Your task to perform on an android device: allow cookies in the chrome app Image 0: 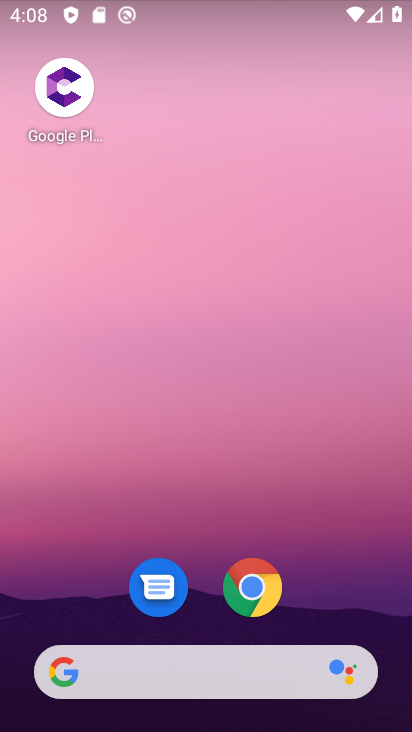
Step 0: click (254, 604)
Your task to perform on an android device: allow cookies in the chrome app Image 1: 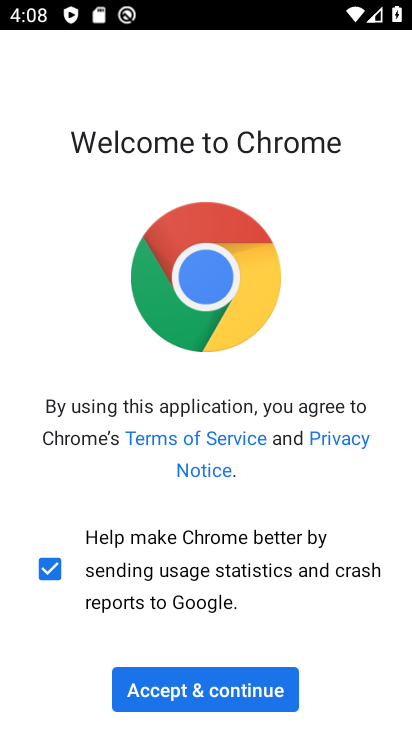
Step 1: click (233, 678)
Your task to perform on an android device: allow cookies in the chrome app Image 2: 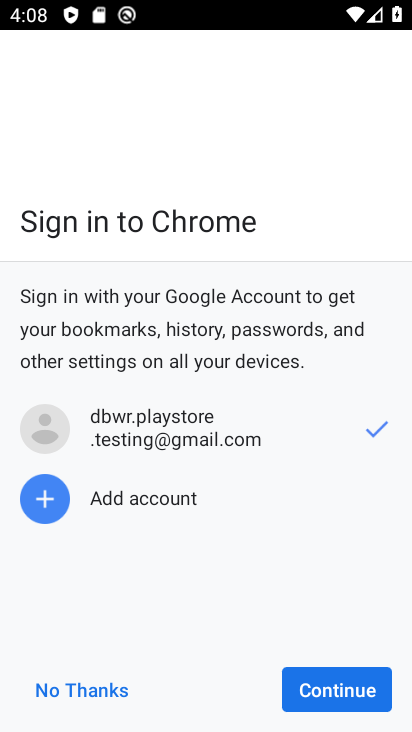
Step 2: click (390, 699)
Your task to perform on an android device: allow cookies in the chrome app Image 3: 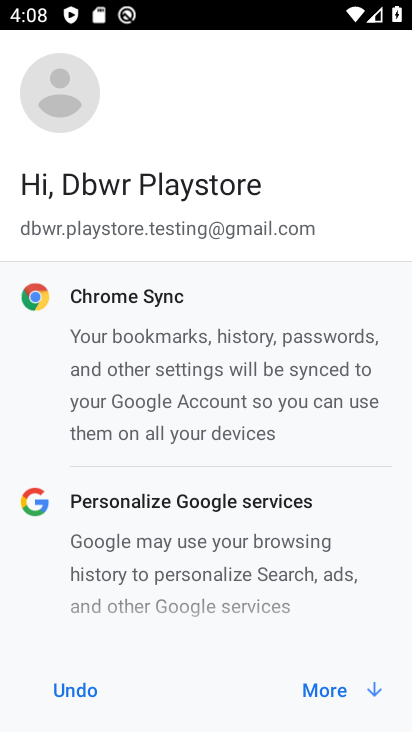
Step 3: click (316, 683)
Your task to perform on an android device: allow cookies in the chrome app Image 4: 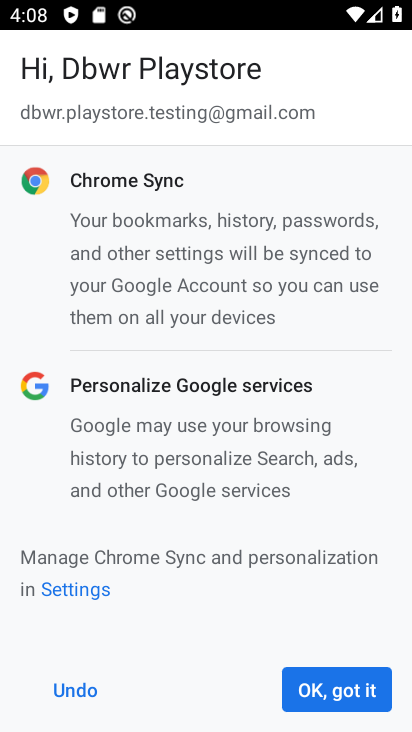
Step 4: click (316, 683)
Your task to perform on an android device: allow cookies in the chrome app Image 5: 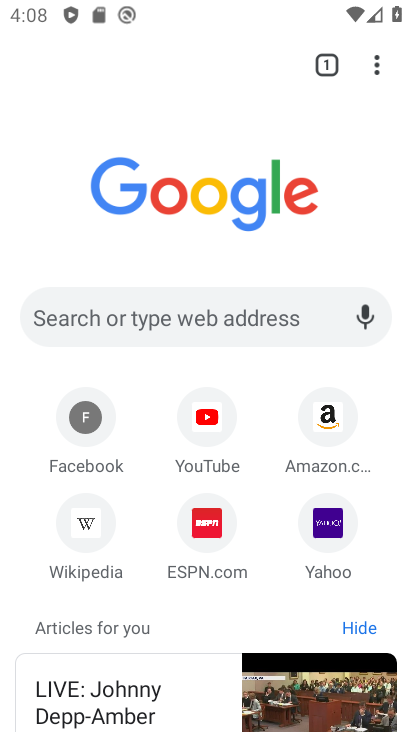
Step 5: click (381, 65)
Your task to perform on an android device: allow cookies in the chrome app Image 6: 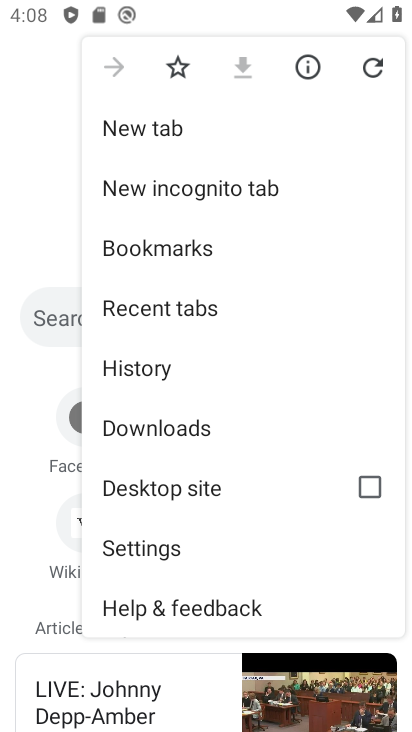
Step 6: click (188, 558)
Your task to perform on an android device: allow cookies in the chrome app Image 7: 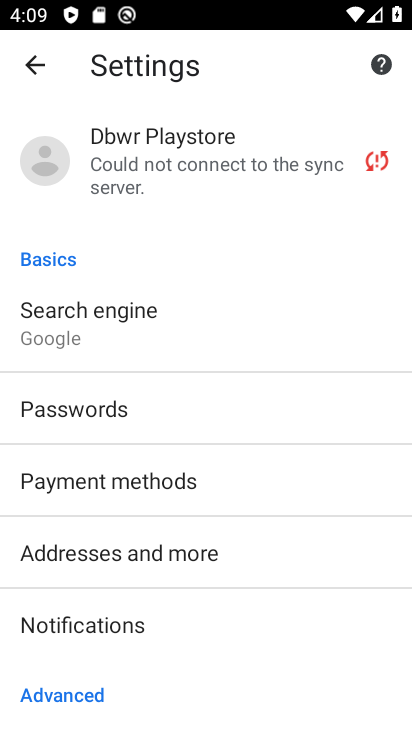
Step 7: drag from (176, 636) to (203, 312)
Your task to perform on an android device: allow cookies in the chrome app Image 8: 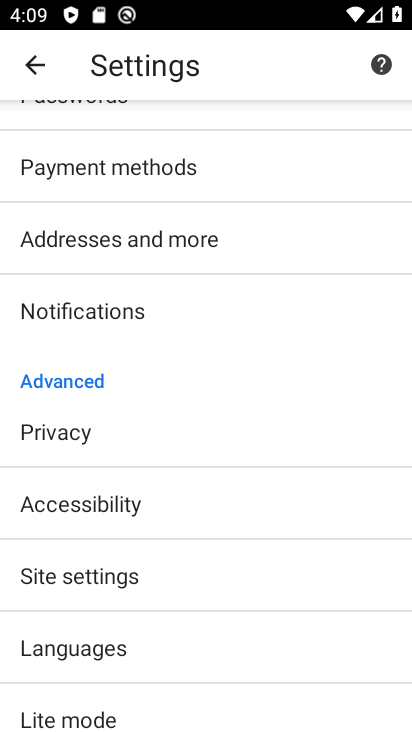
Step 8: drag from (144, 646) to (233, 165)
Your task to perform on an android device: allow cookies in the chrome app Image 9: 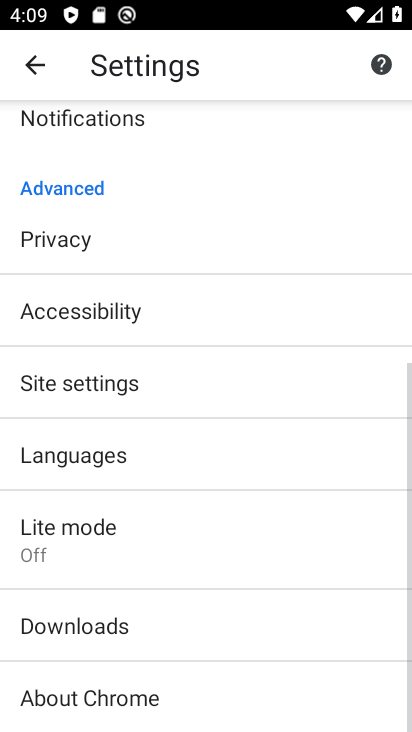
Step 9: click (124, 404)
Your task to perform on an android device: allow cookies in the chrome app Image 10: 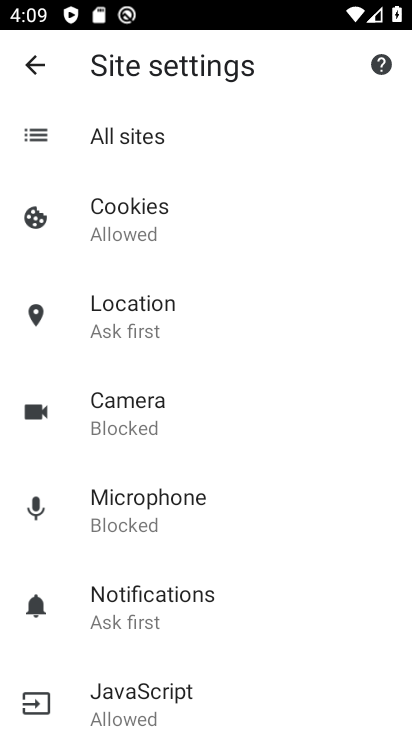
Step 10: click (136, 228)
Your task to perform on an android device: allow cookies in the chrome app Image 11: 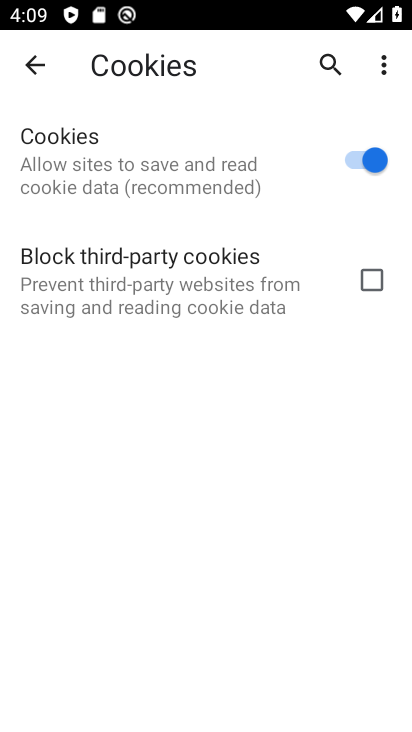
Step 11: task complete